Your task to perform on an android device: Show me the alarms in the clock app Image 0: 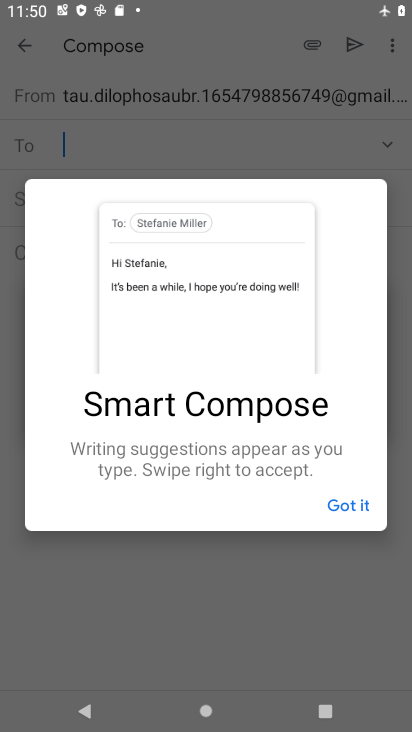
Step 0: press home button
Your task to perform on an android device: Show me the alarms in the clock app Image 1: 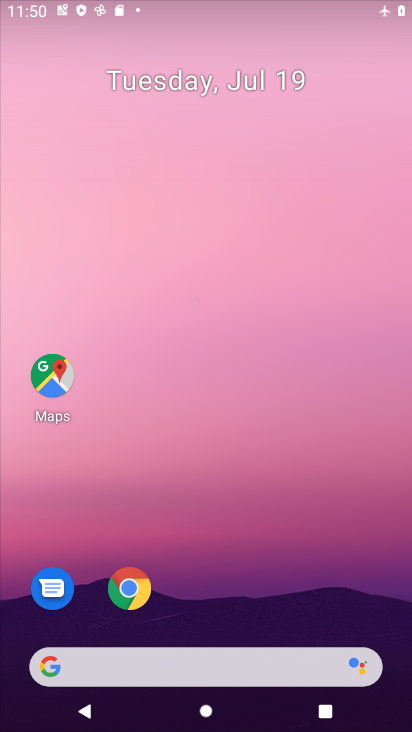
Step 1: drag from (396, 654) to (166, 90)
Your task to perform on an android device: Show me the alarms in the clock app Image 2: 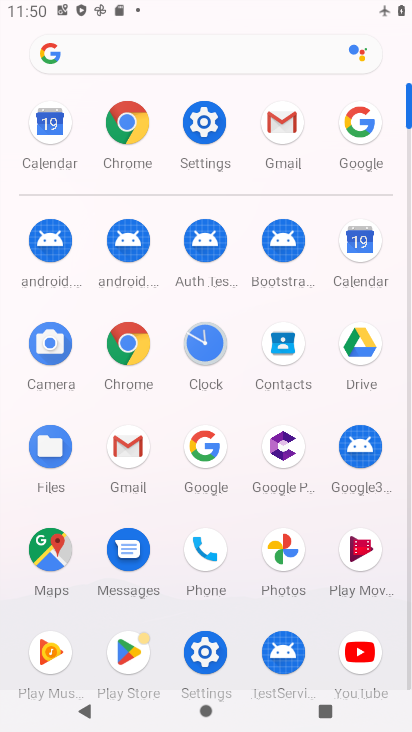
Step 2: click (198, 348)
Your task to perform on an android device: Show me the alarms in the clock app Image 3: 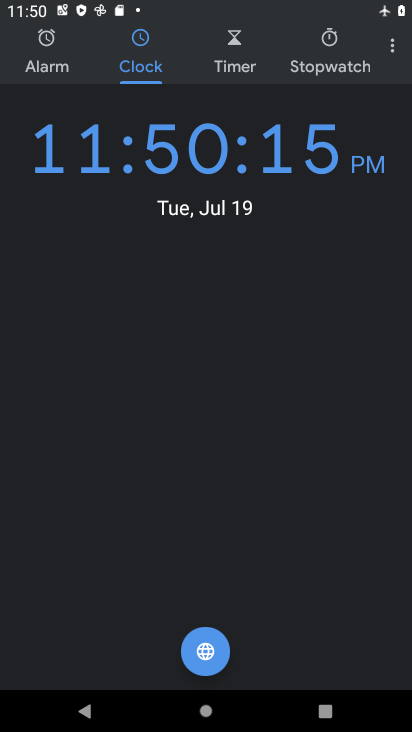
Step 3: click (46, 43)
Your task to perform on an android device: Show me the alarms in the clock app Image 4: 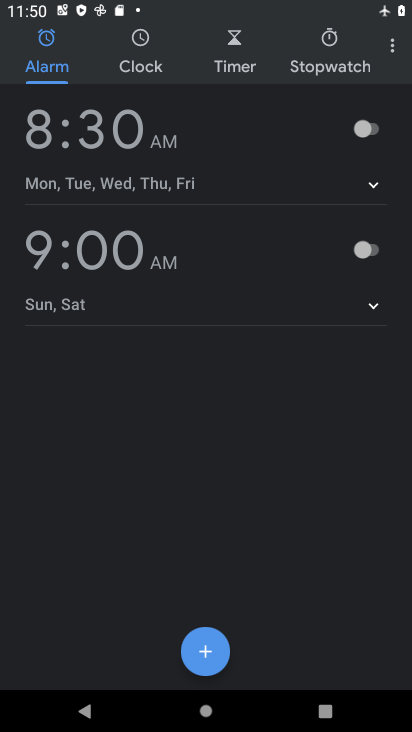
Step 4: task complete